Your task to perform on an android device: Go to notification settings Image 0: 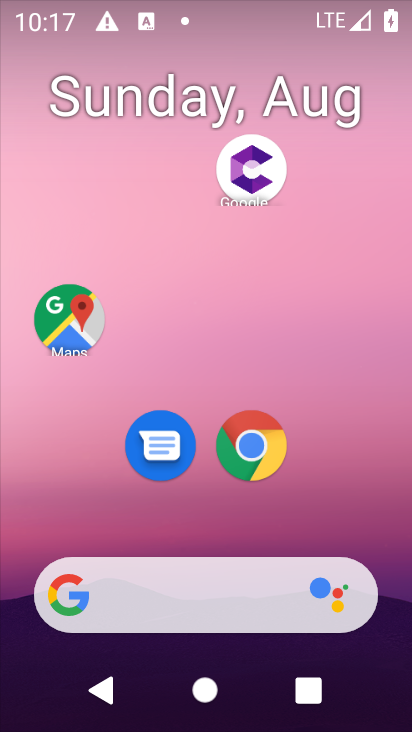
Step 0: press home button
Your task to perform on an android device: Go to notification settings Image 1: 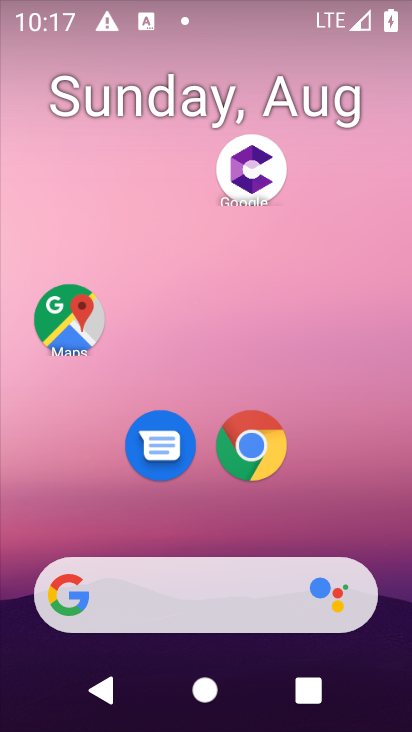
Step 1: drag from (214, 530) to (238, 88)
Your task to perform on an android device: Go to notification settings Image 2: 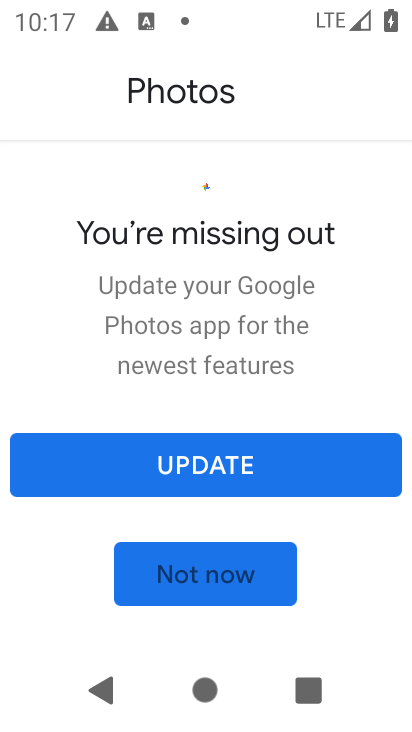
Step 2: press home button
Your task to perform on an android device: Go to notification settings Image 3: 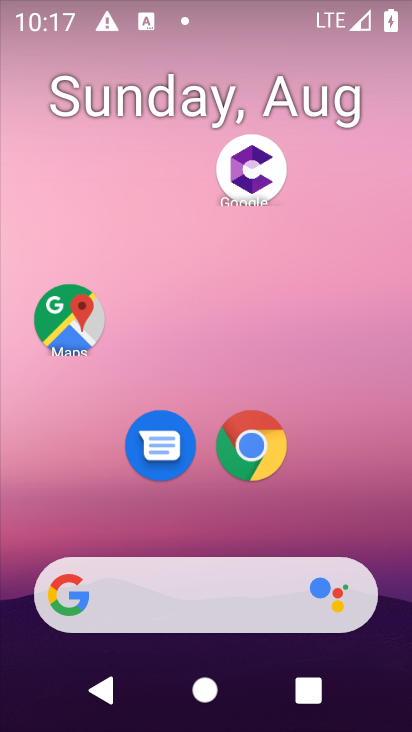
Step 3: drag from (288, 525) to (319, 10)
Your task to perform on an android device: Go to notification settings Image 4: 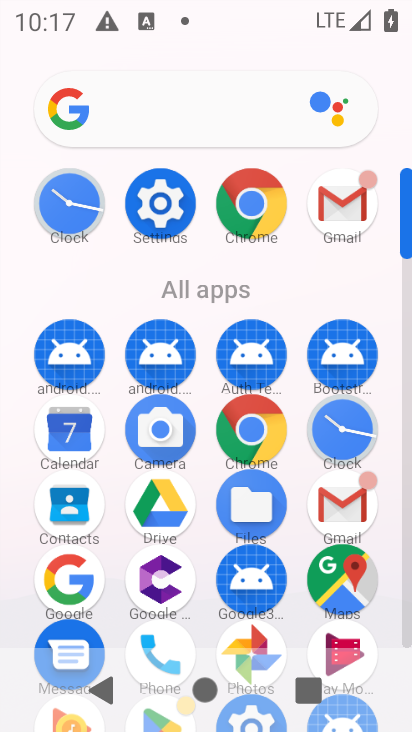
Step 4: click (160, 201)
Your task to perform on an android device: Go to notification settings Image 5: 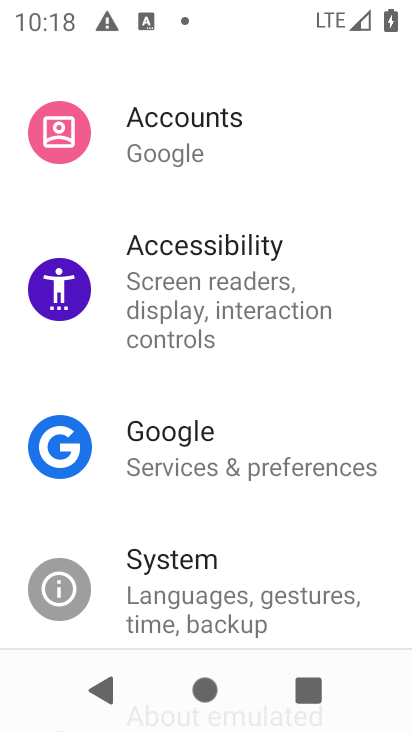
Step 5: drag from (206, 127) to (213, 728)
Your task to perform on an android device: Go to notification settings Image 6: 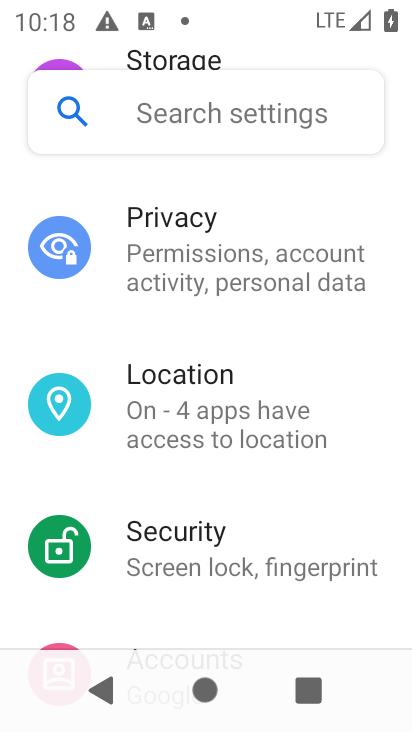
Step 6: drag from (216, 223) to (210, 665)
Your task to perform on an android device: Go to notification settings Image 7: 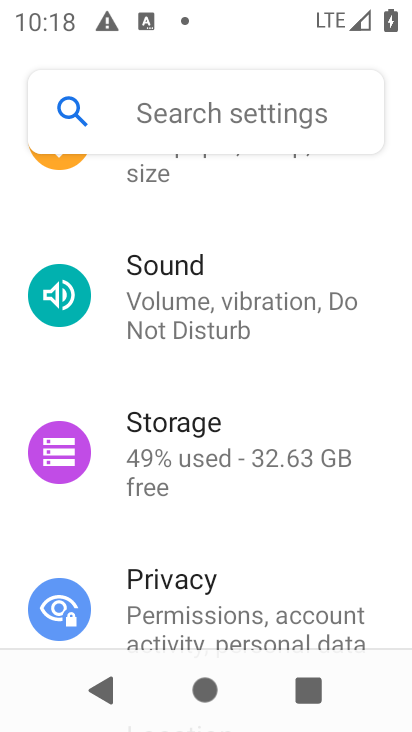
Step 7: drag from (233, 208) to (245, 730)
Your task to perform on an android device: Go to notification settings Image 8: 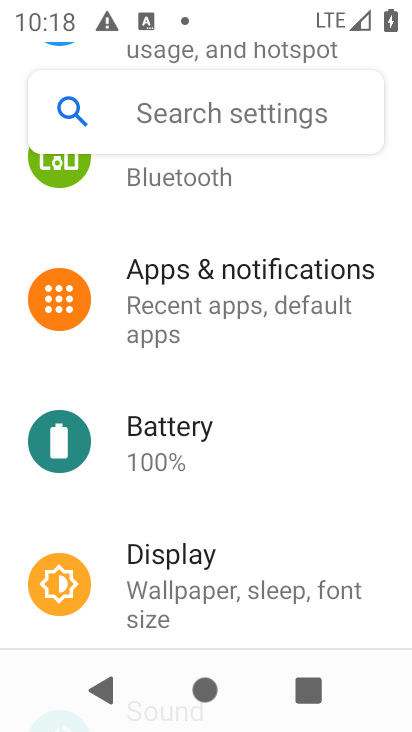
Step 8: click (253, 299)
Your task to perform on an android device: Go to notification settings Image 9: 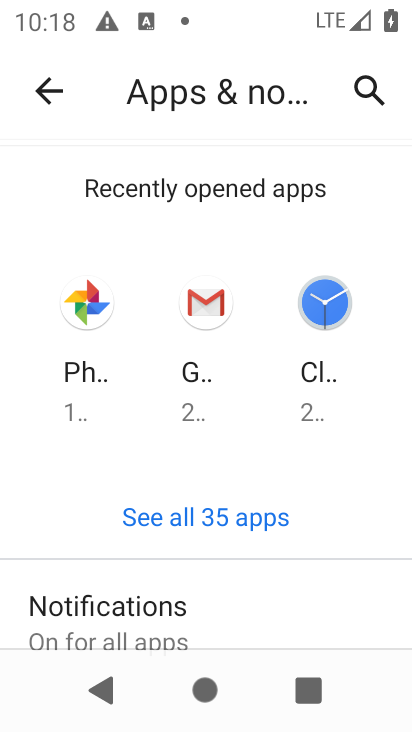
Step 9: click (210, 617)
Your task to perform on an android device: Go to notification settings Image 10: 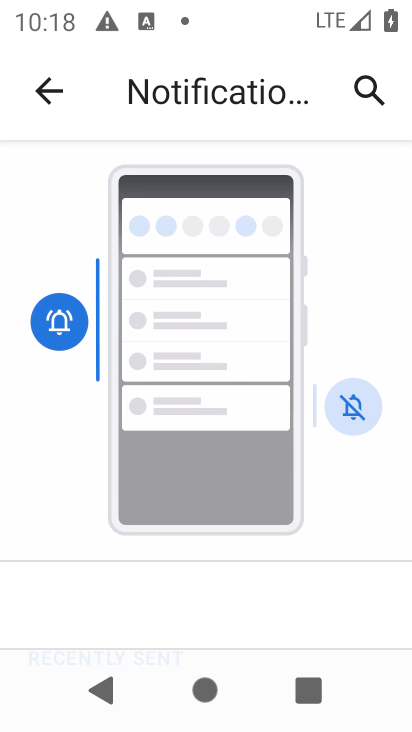
Step 10: drag from (191, 598) to (219, 254)
Your task to perform on an android device: Go to notification settings Image 11: 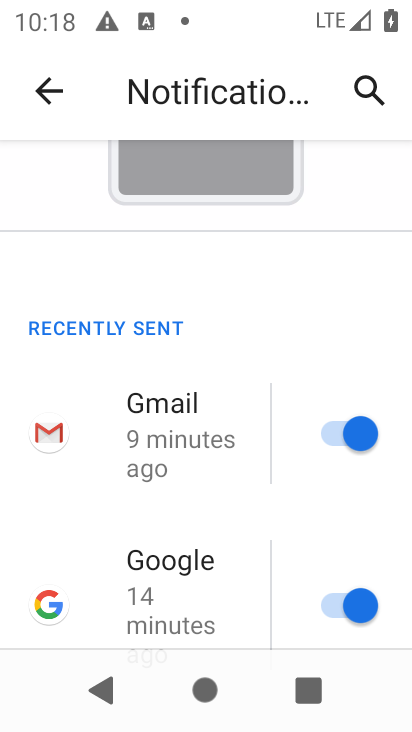
Step 11: drag from (169, 589) to (210, 204)
Your task to perform on an android device: Go to notification settings Image 12: 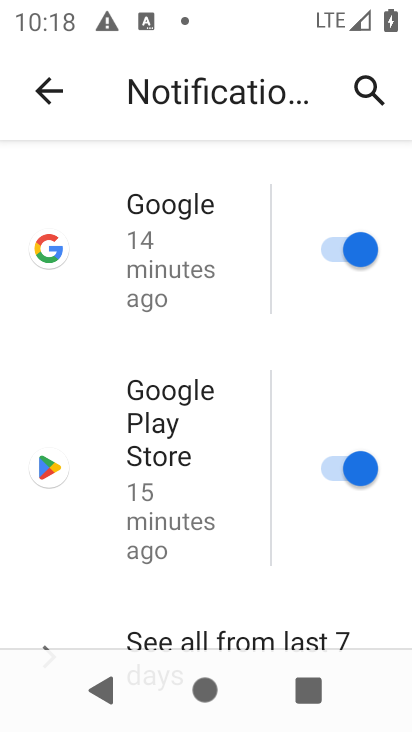
Step 12: drag from (175, 560) to (202, 227)
Your task to perform on an android device: Go to notification settings Image 13: 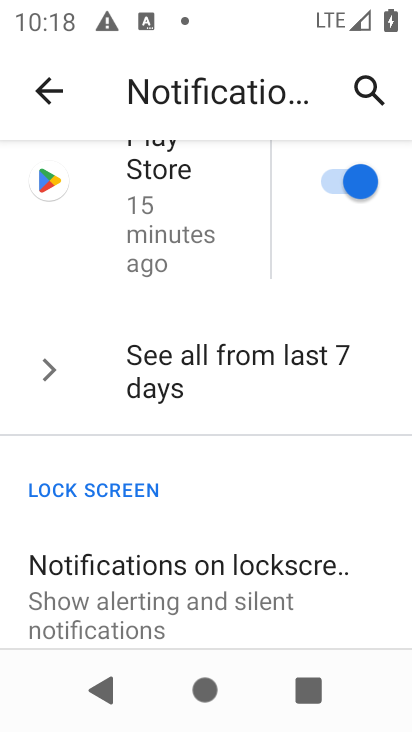
Step 13: click (194, 576)
Your task to perform on an android device: Go to notification settings Image 14: 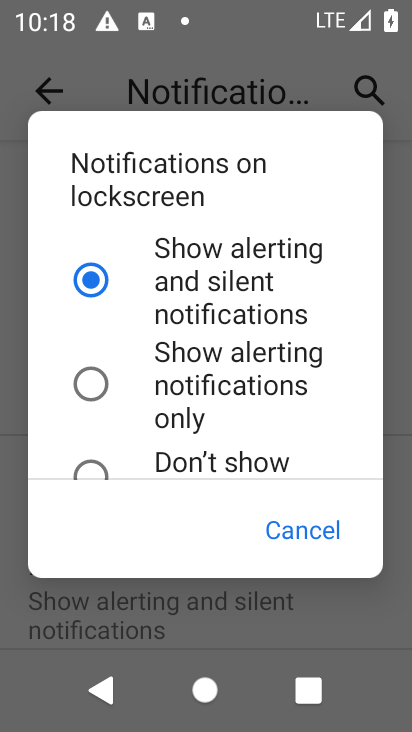
Step 14: click (103, 294)
Your task to perform on an android device: Go to notification settings Image 15: 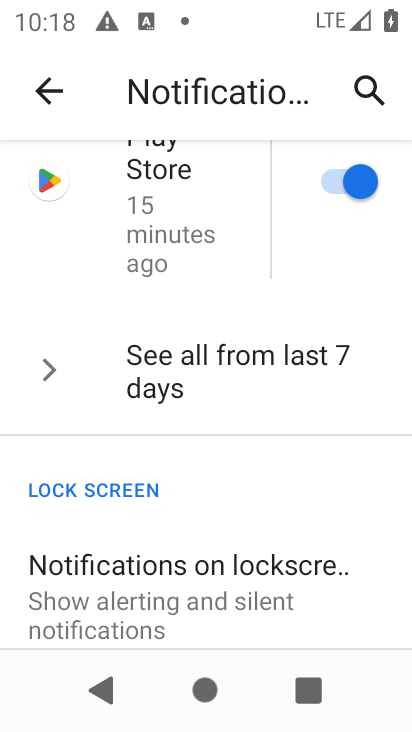
Step 15: task complete